Your task to perform on an android device: change text size in settings app Image 0: 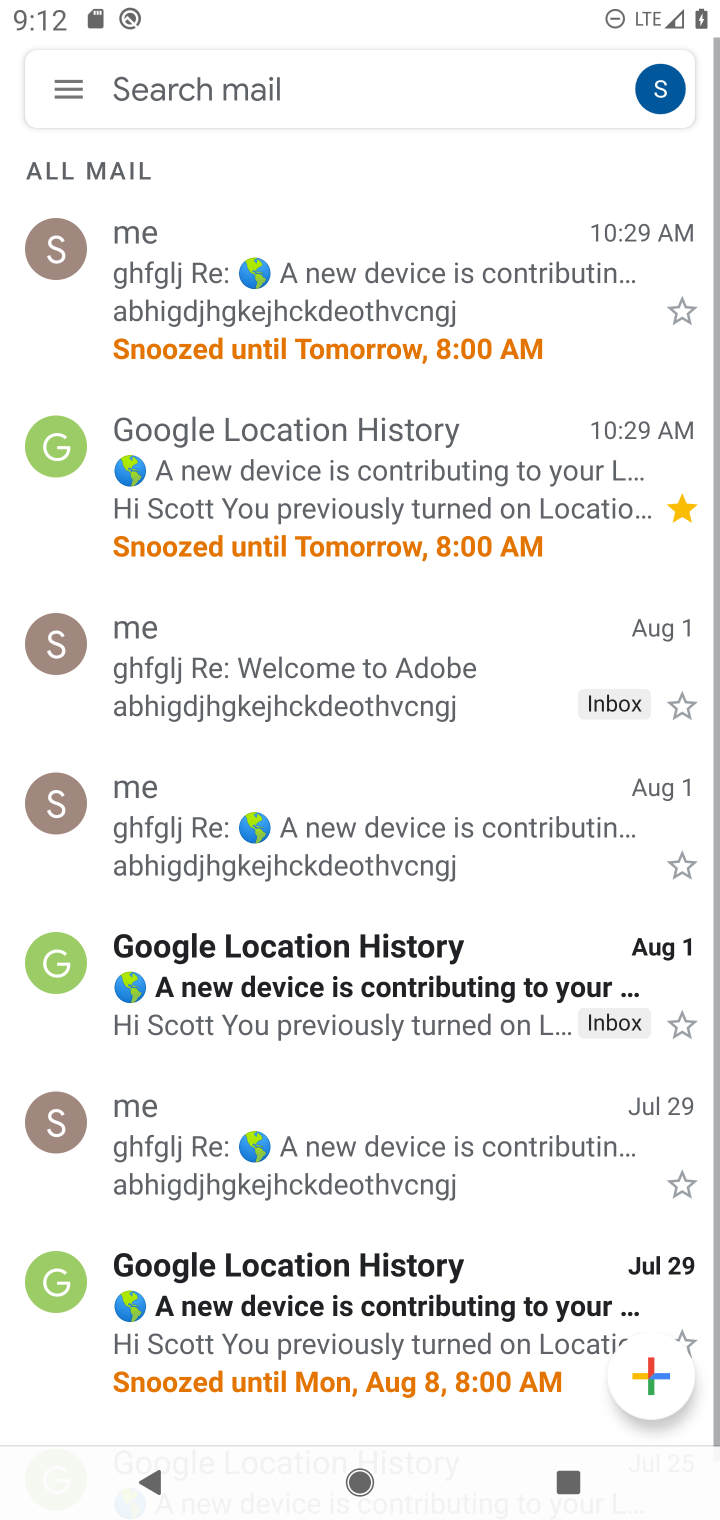
Step 0: press home button
Your task to perform on an android device: change text size in settings app Image 1: 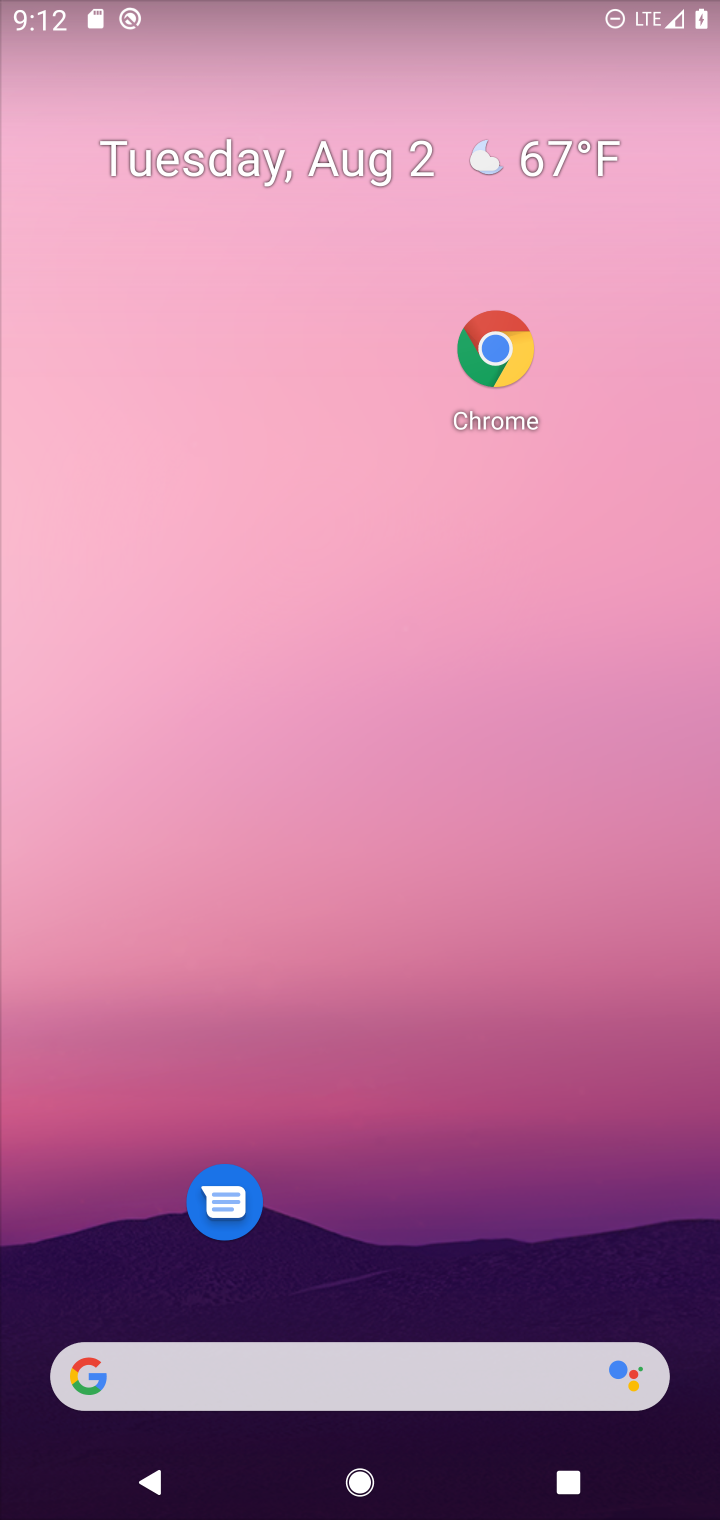
Step 1: drag from (381, 1188) to (444, 161)
Your task to perform on an android device: change text size in settings app Image 2: 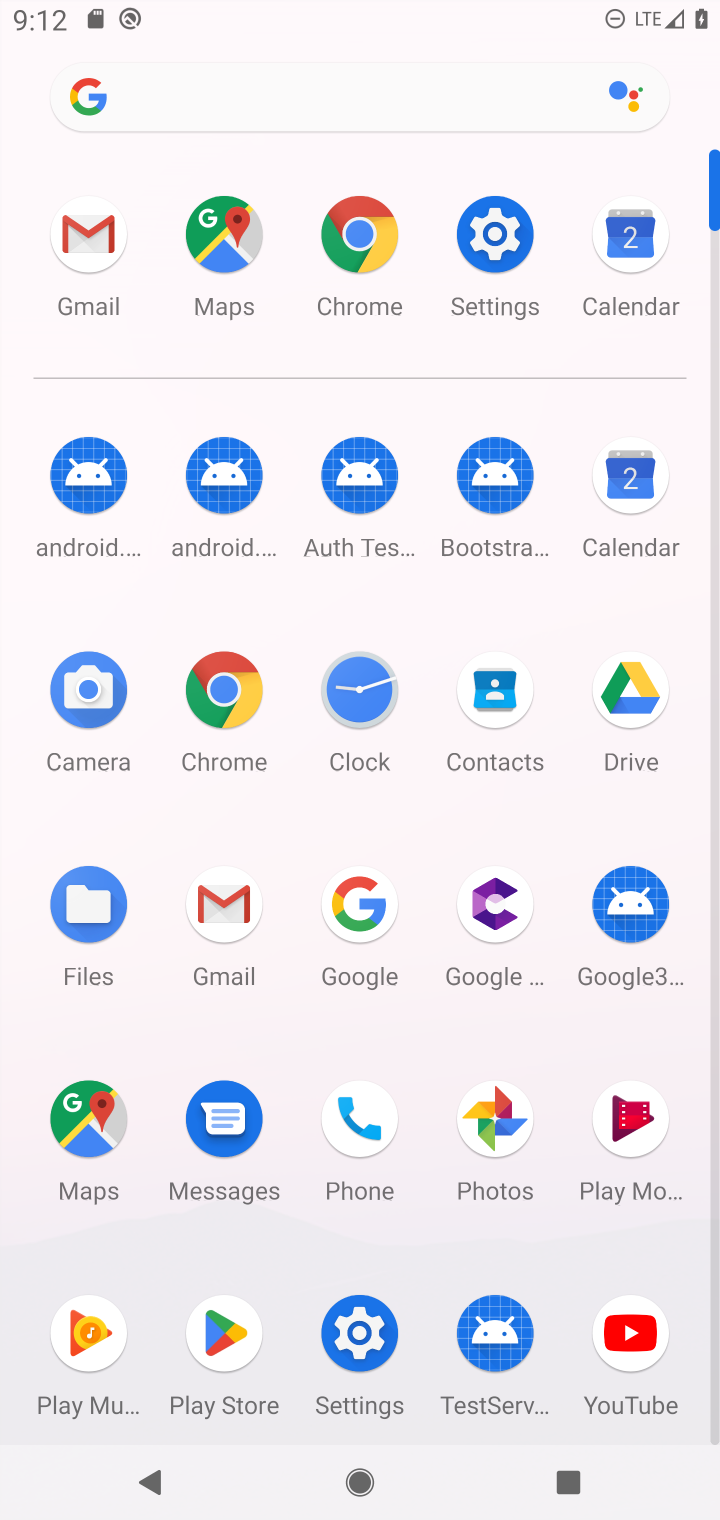
Step 2: click (486, 232)
Your task to perform on an android device: change text size in settings app Image 3: 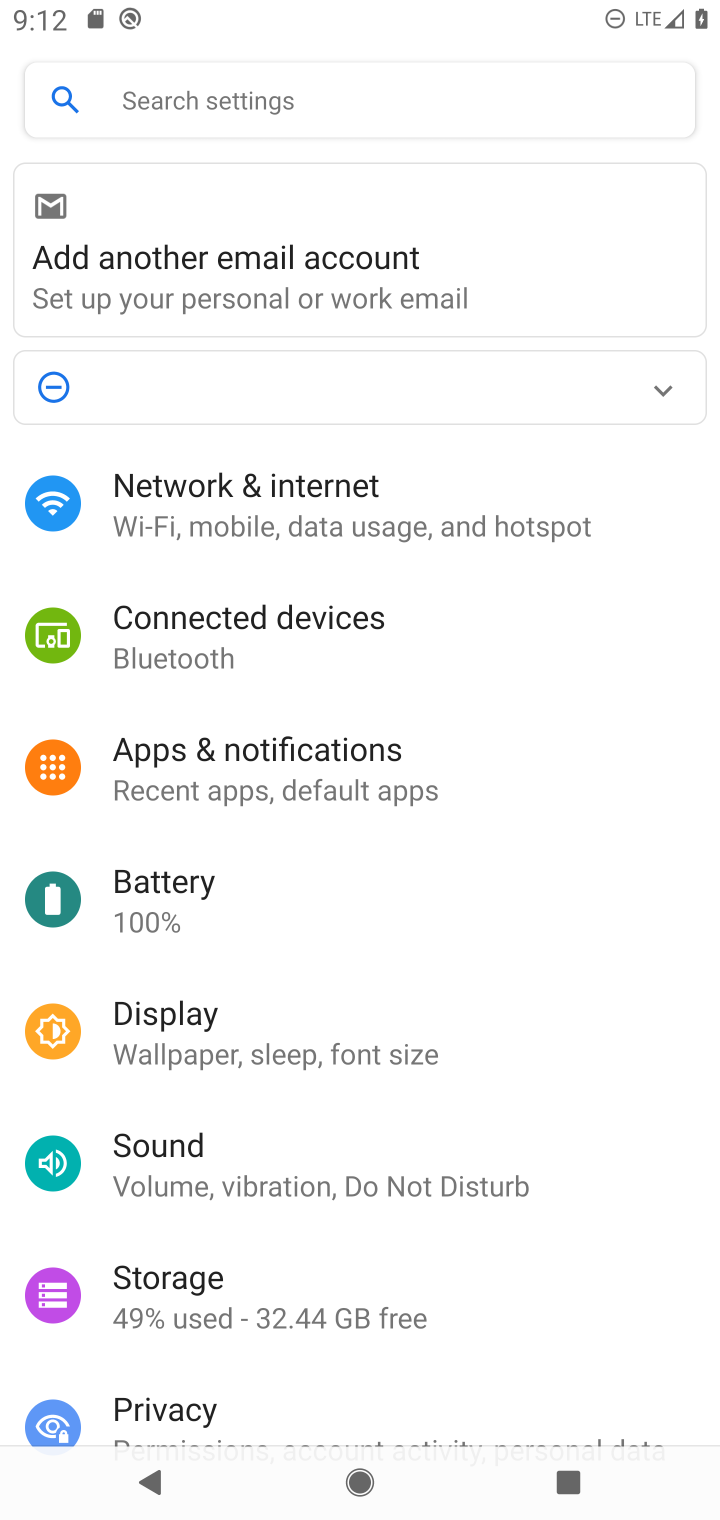
Step 3: click (199, 1039)
Your task to perform on an android device: change text size in settings app Image 4: 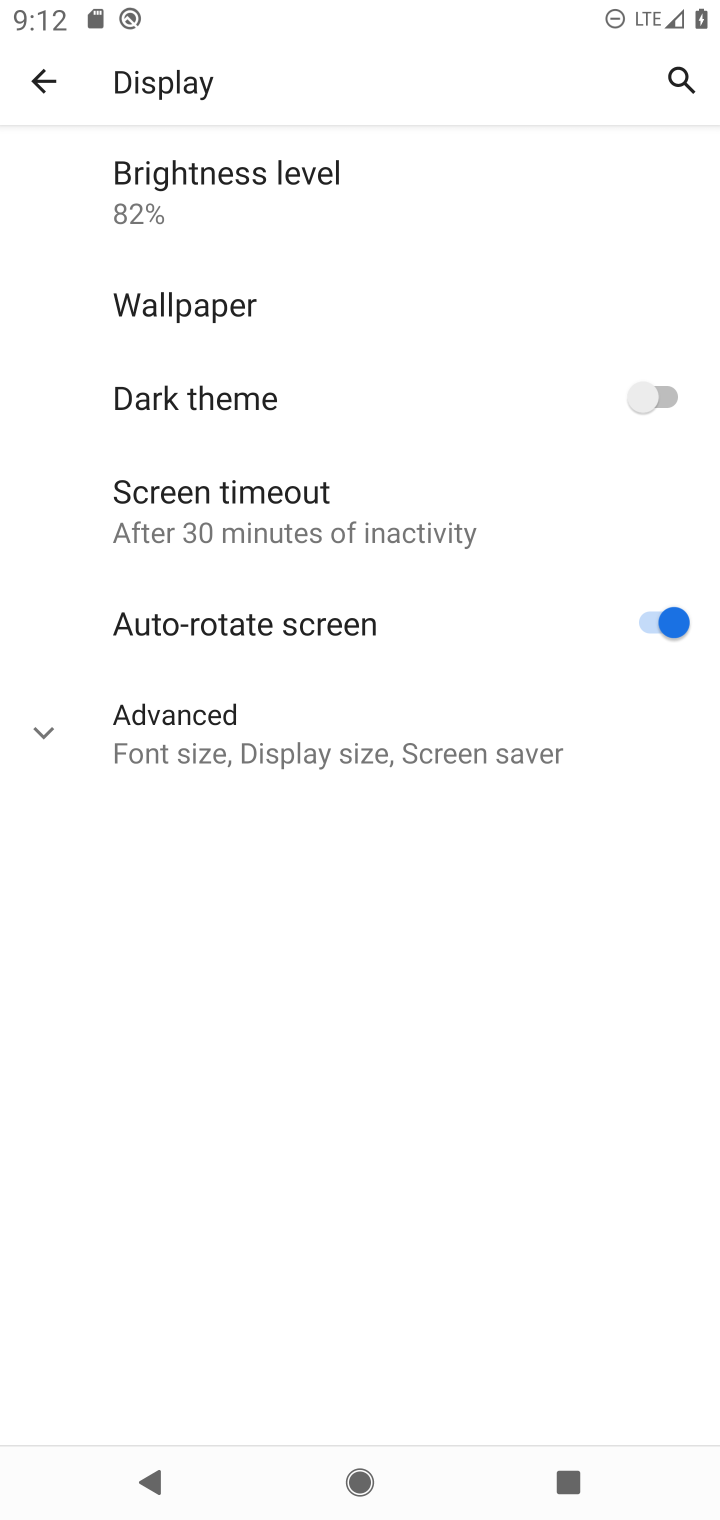
Step 4: click (50, 741)
Your task to perform on an android device: change text size in settings app Image 5: 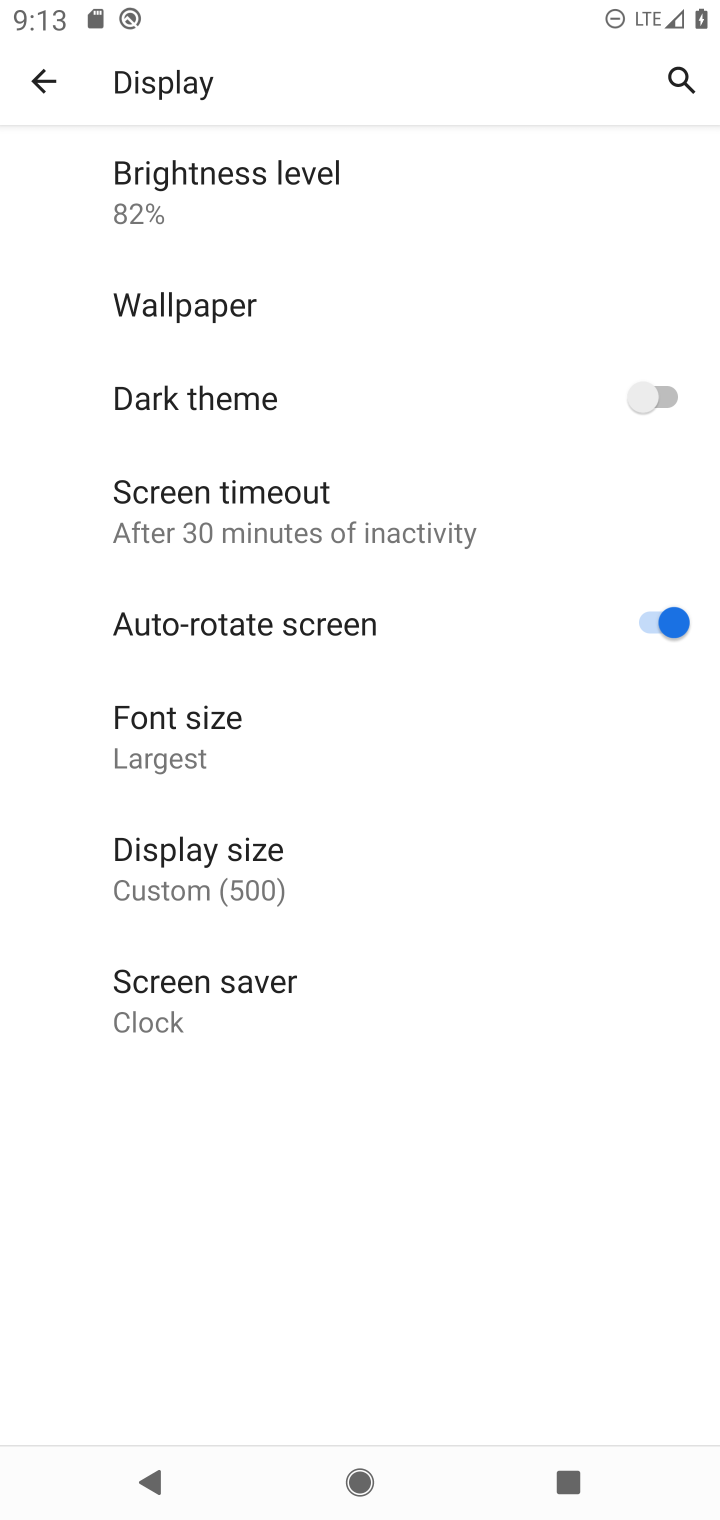
Step 5: click (185, 715)
Your task to perform on an android device: change text size in settings app Image 6: 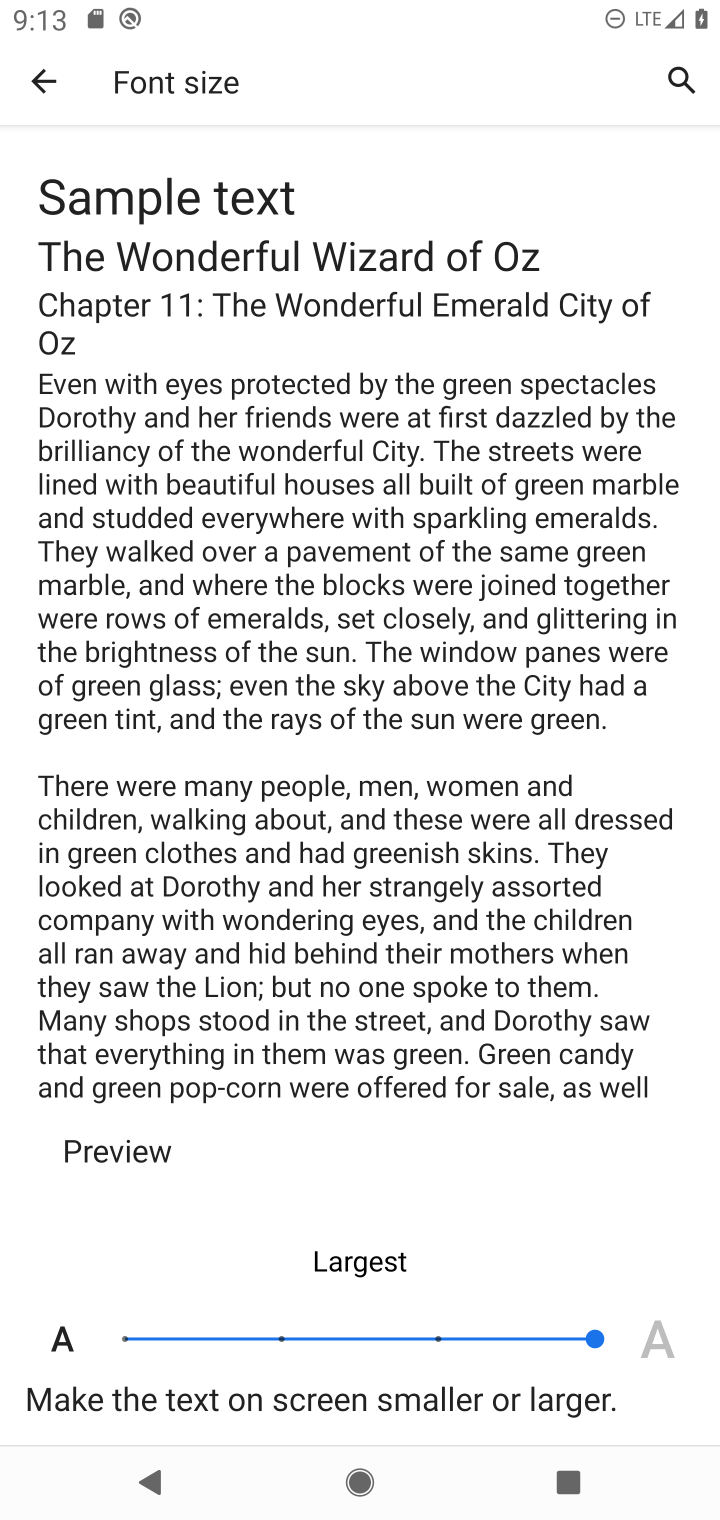
Step 6: task complete